Your task to perform on an android device: change keyboard looks Image 0: 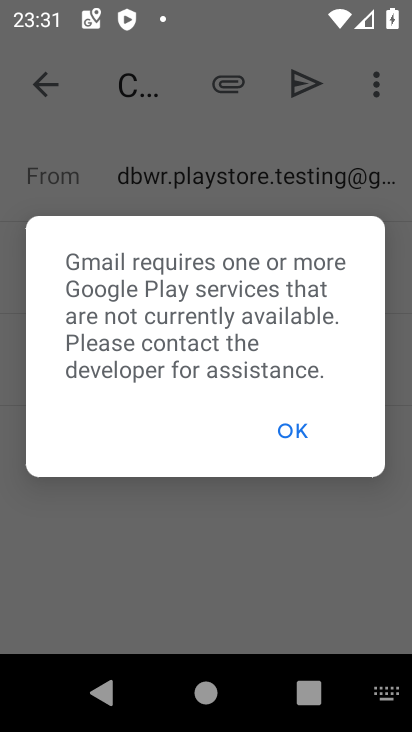
Step 0: click (278, 427)
Your task to perform on an android device: change keyboard looks Image 1: 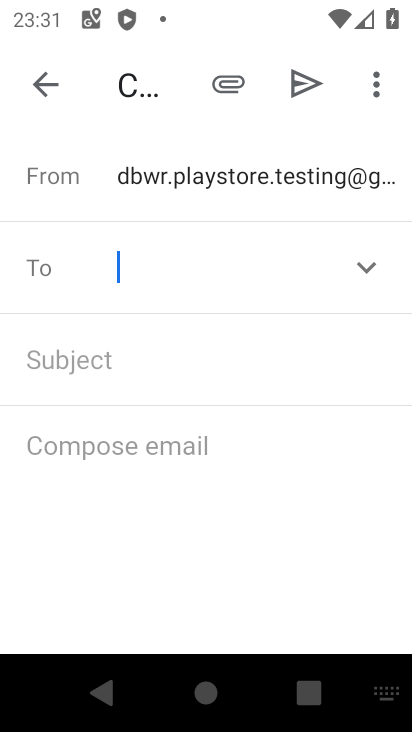
Step 1: press home button
Your task to perform on an android device: change keyboard looks Image 2: 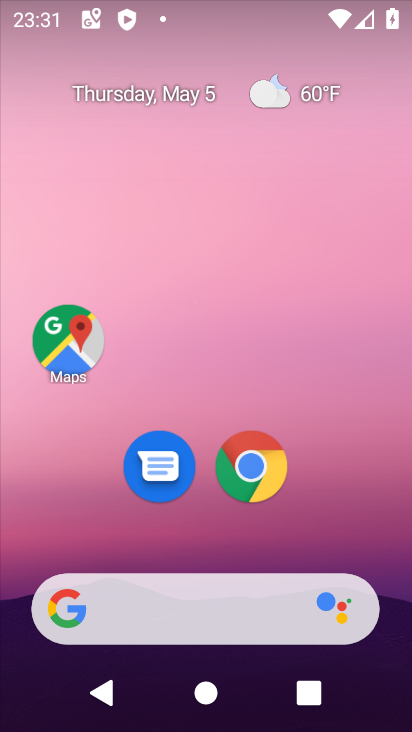
Step 2: drag from (206, 571) to (227, 204)
Your task to perform on an android device: change keyboard looks Image 3: 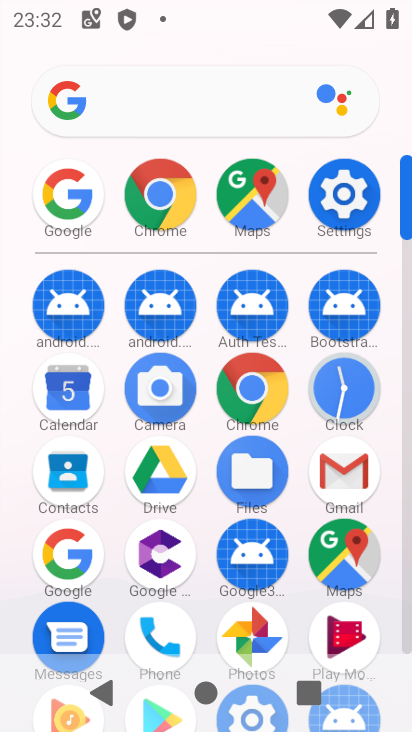
Step 3: drag from (189, 652) to (244, 285)
Your task to perform on an android device: change keyboard looks Image 4: 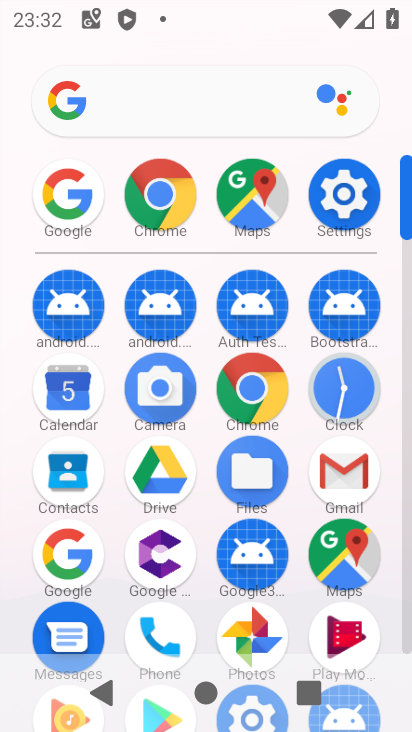
Step 4: click (339, 197)
Your task to perform on an android device: change keyboard looks Image 5: 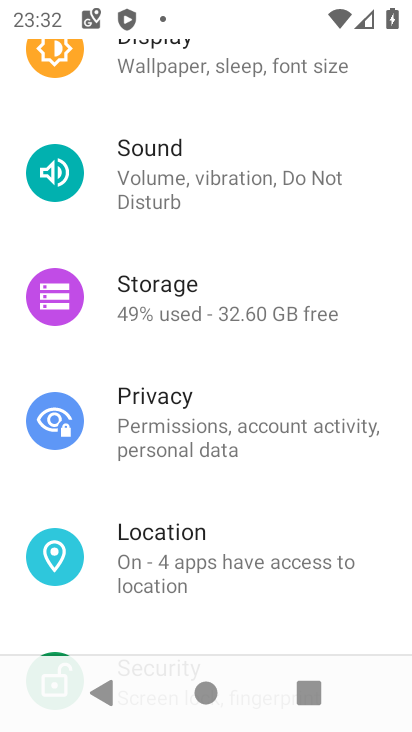
Step 5: drag from (213, 607) to (252, 234)
Your task to perform on an android device: change keyboard looks Image 6: 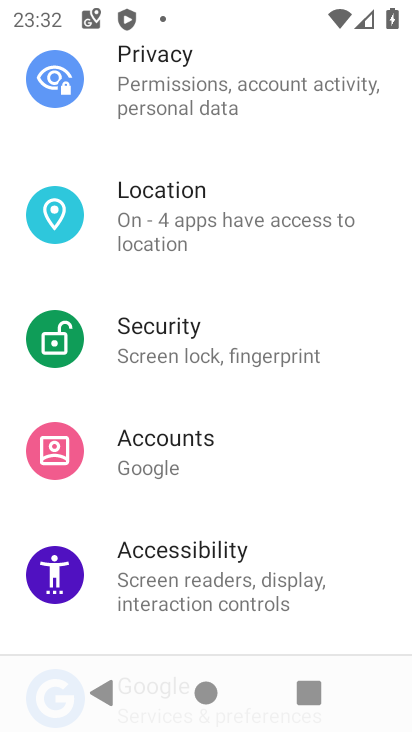
Step 6: drag from (214, 594) to (223, 274)
Your task to perform on an android device: change keyboard looks Image 7: 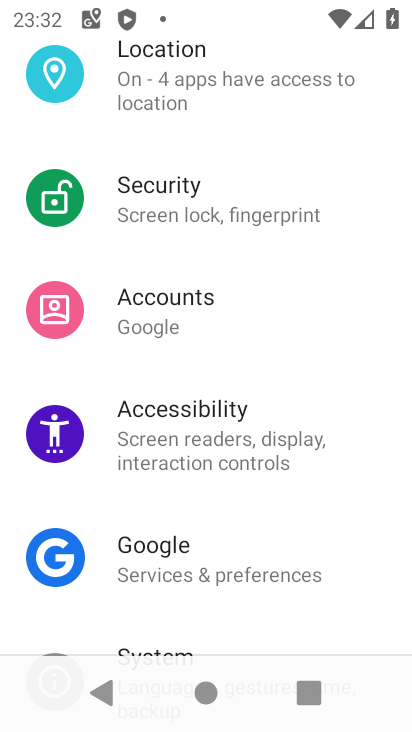
Step 7: drag from (233, 596) to (255, 363)
Your task to perform on an android device: change keyboard looks Image 8: 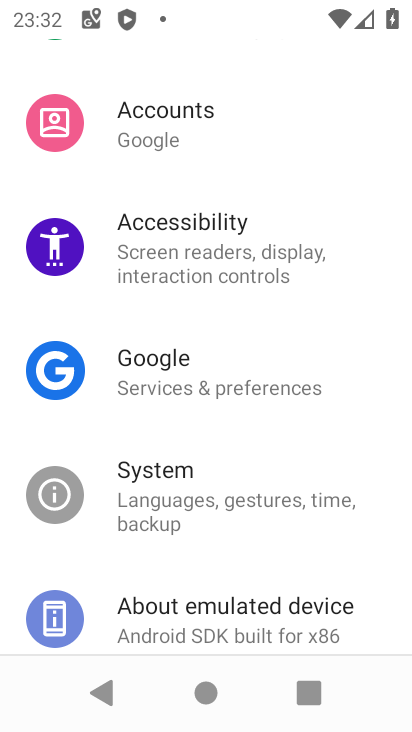
Step 8: drag from (241, 581) to (249, 326)
Your task to perform on an android device: change keyboard looks Image 9: 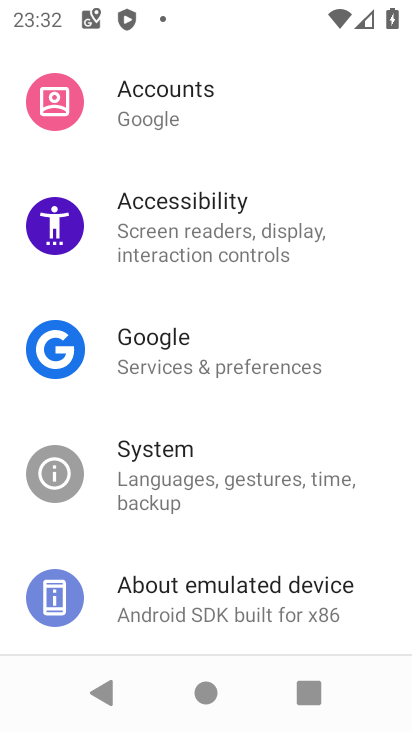
Step 9: click (194, 474)
Your task to perform on an android device: change keyboard looks Image 10: 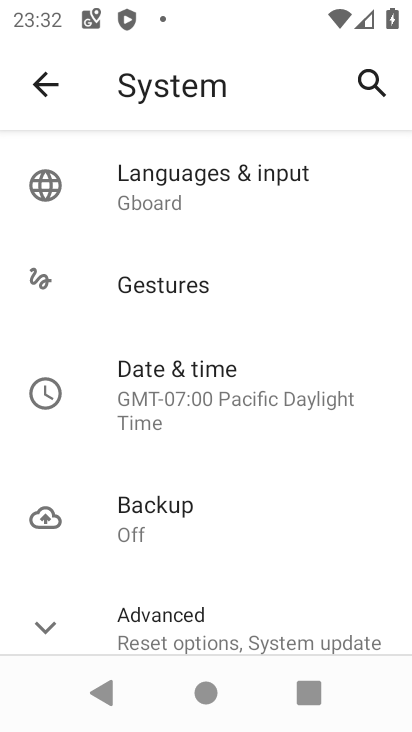
Step 10: click (160, 198)
Your task to perform on an android device: change keyboard looks Image 11: 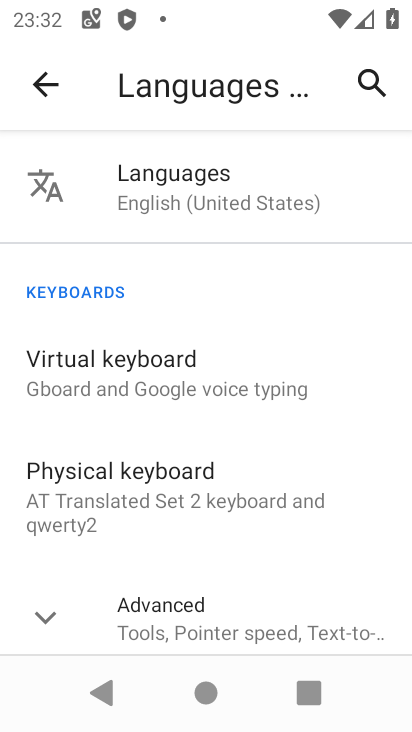
Step 11: click (132, 384)
Your task to perform on an android device: change keyboard looks Image 12: 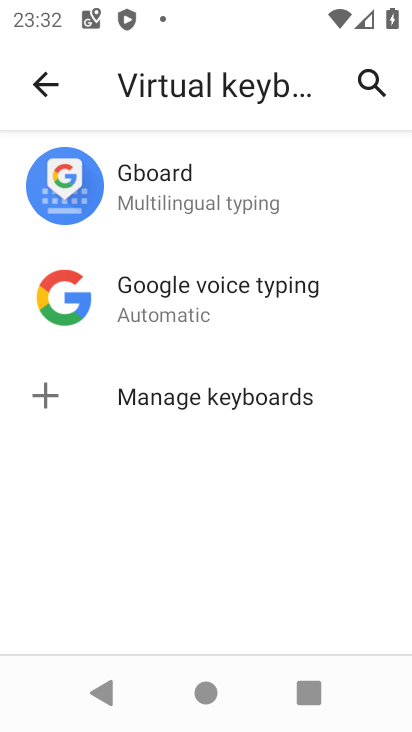
Step 12: click (180, 185)
Your task to perform on an android device: change keyboard looks Image 13: 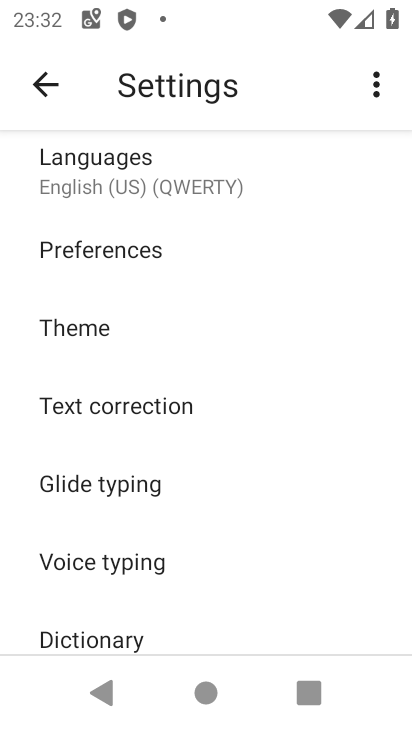
Step 13: click (77, 328)
Your task to perform on an android device: change keyboard looks Image 14: 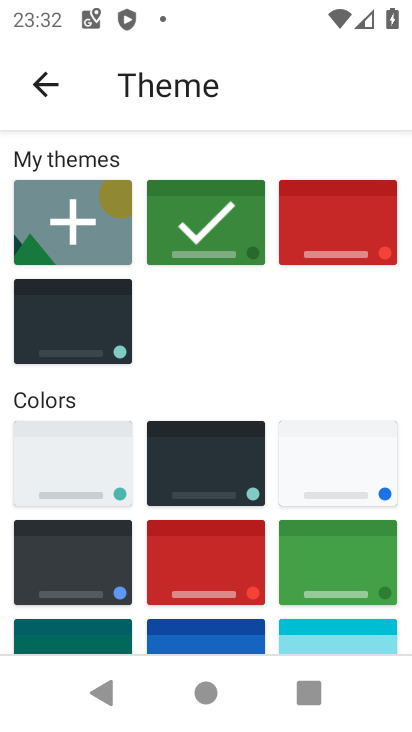
Step 14: click (204, 636)
Your task to perform on an android device: change keyboard looks Image 15: 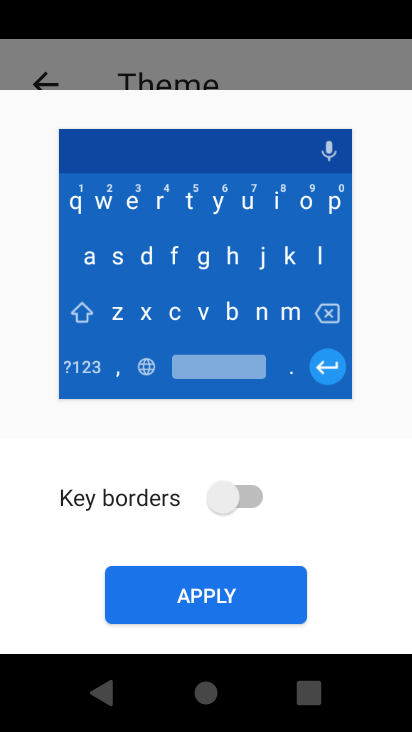
Step 15: click (217, 593)
Your task to perform on an android device: change keyboard looks Image 16: 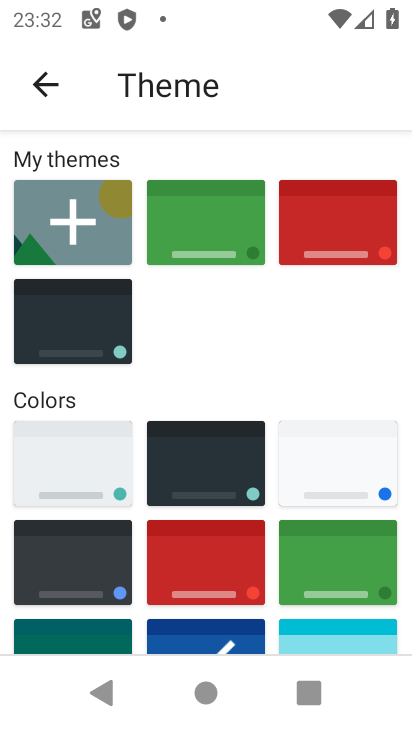
Step 16: task complete